Your task to perform on an android device: turn smart compose on in the gmail app Image 0: 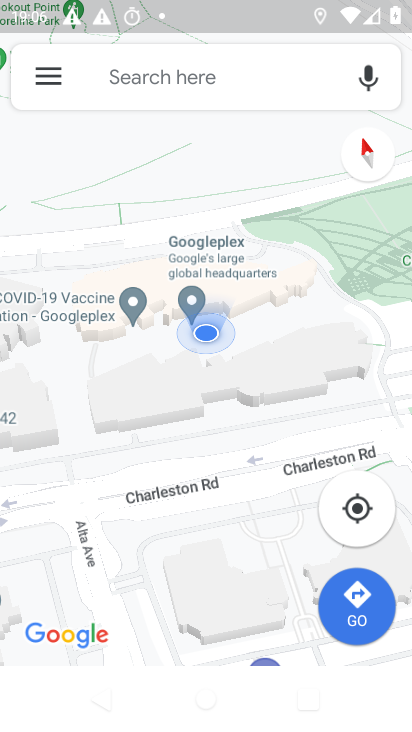
Step 0: press home button
Your task to perform on an android device: turn smart compose on in the gmail app Image 1: 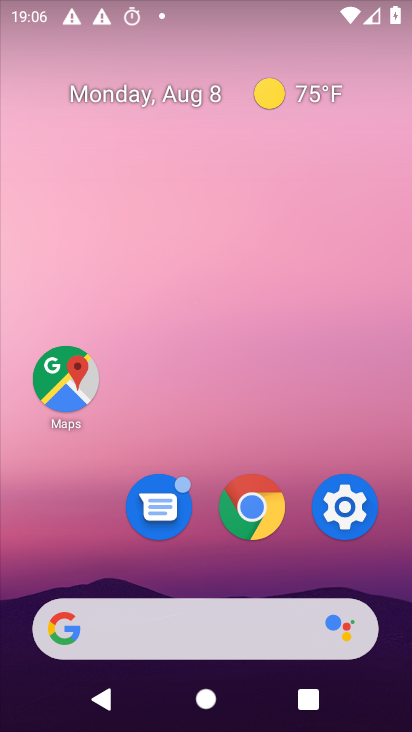
Step 1: drag from (297, 641) to (290, 154)
Your task to perform on an android device: turn smart compose on in the gmail app Image 2: 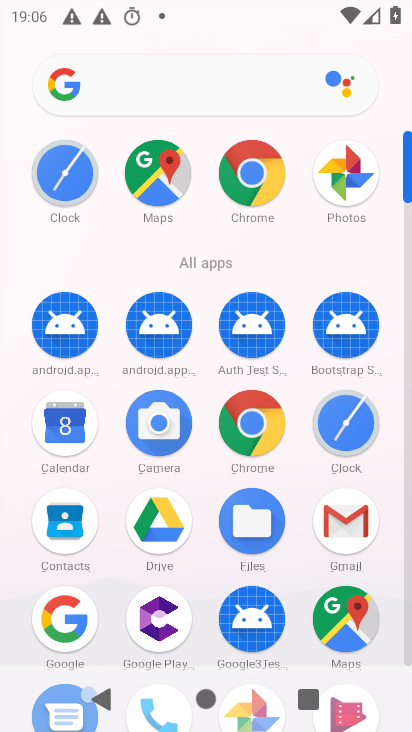
Step 2: click (356, 534)
Your task to perform on an android device: turn smart compose on in the gmail app Image 3: 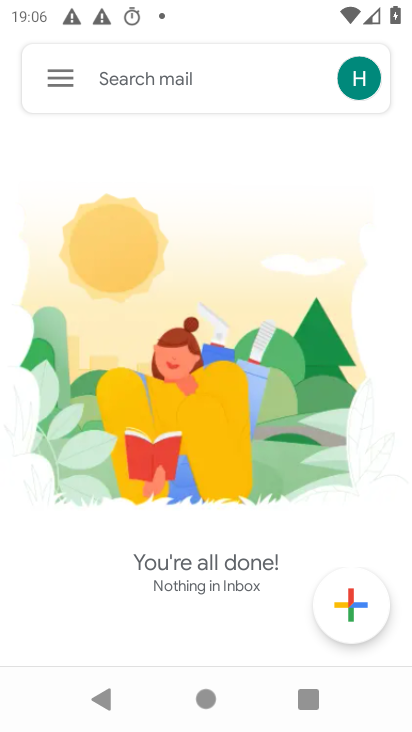
Step 3: click (25, 64)
Your task to perform on an android device: turn smart compose on in the gmail app Image 4: 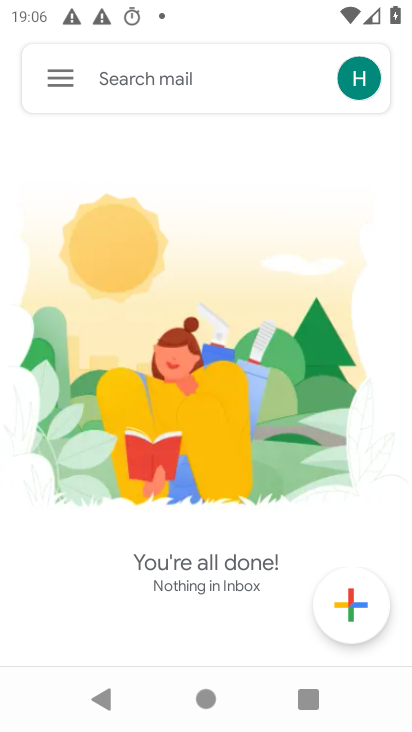
Step 4: click (66, 75)
Your task to perform on an android device: turn smart compose on in the gmail app Image 5: 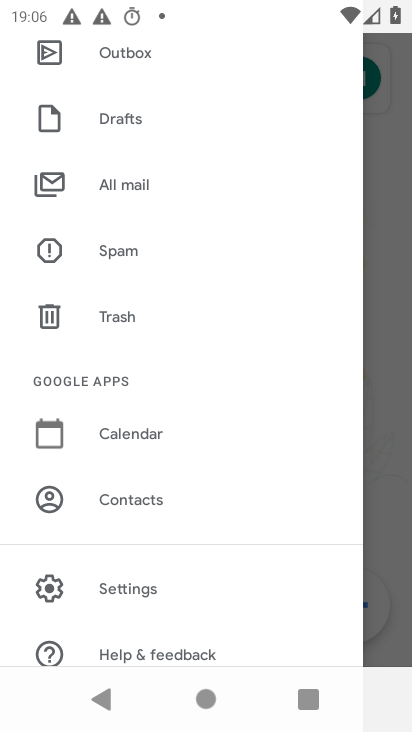
Step 5: click (150, 586)
Your task to perform on an android device: turn smart compose on in the gmail app Image 6: 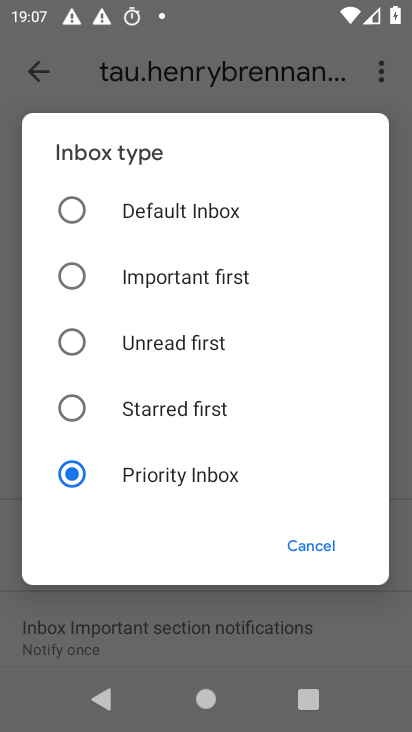
Step 6: click (313, 550)
Your task to perform on an android device: turn smart compose on in the gmail app Image 7: 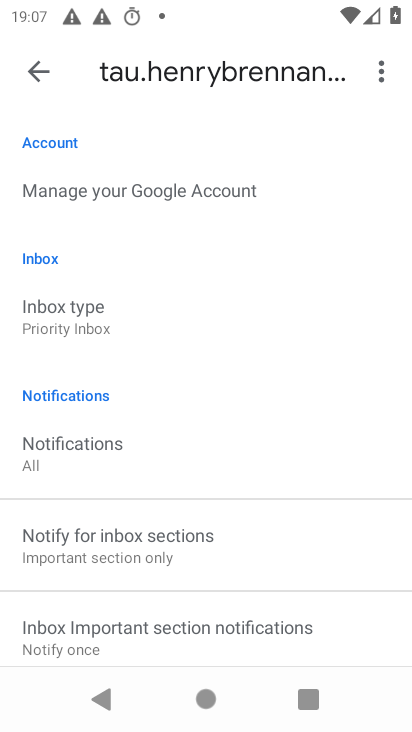
Step 7: drag from (226, 614) to (217, 126)
Your task to perform on an android device: turn smart compose on in the gmail app Image 8: 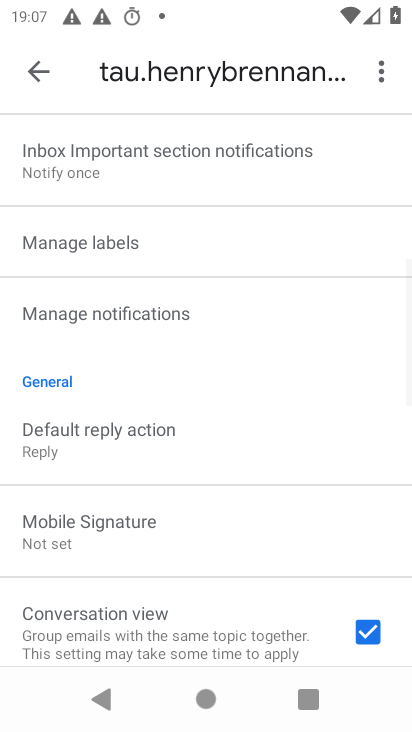
Step 8: drag from (188, 567) to (190, 248)
Your task to perform on an android device: turn smart compose on in the gmail app Image 9: 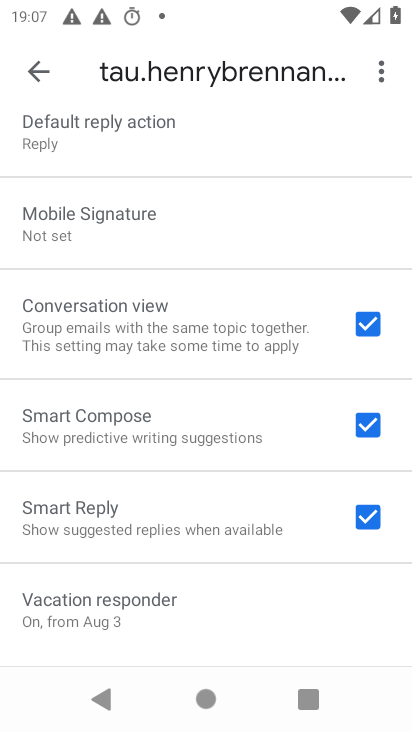
Step 9: click (366, 430)
Your task to perform on an android device: turn smart compose on in the gmail app Image 10: 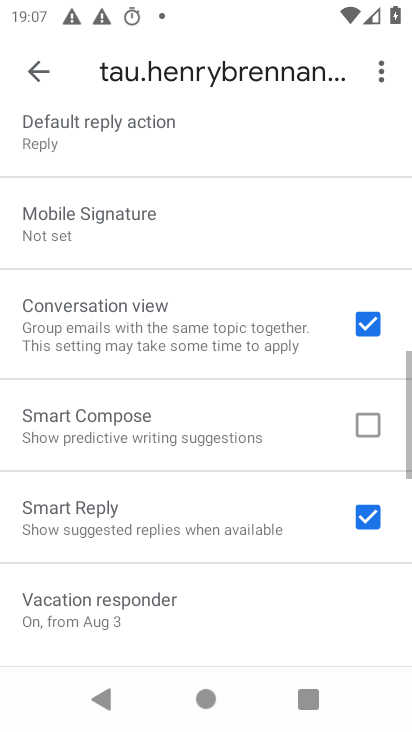
Step 10: click (366, 430)
Your task to perform on an android device: turn smart compose on in the gmail app Image 11: 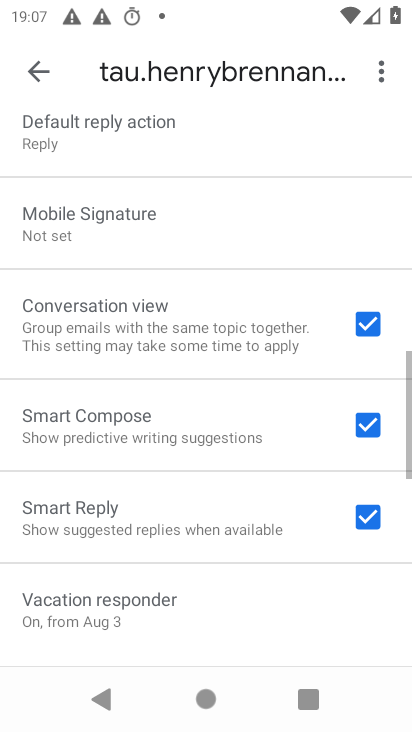
Step 11: task complete